Your task to perform on an android device: Open settings on Google Maps Image 0: 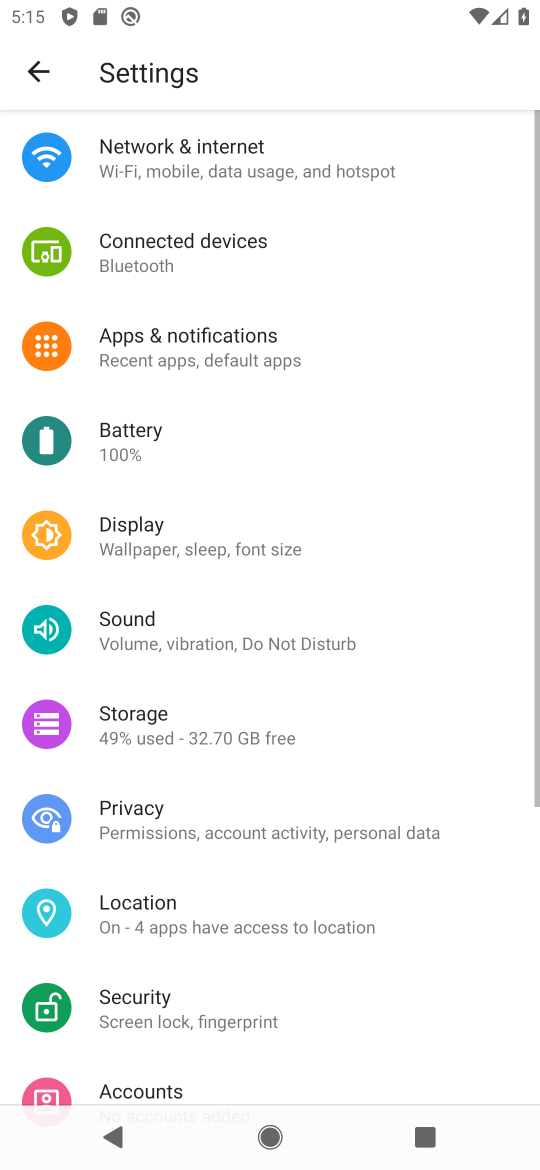
Step 0: press home button
Your task to perform on an android device: Open settings on Google Maps Image 1: 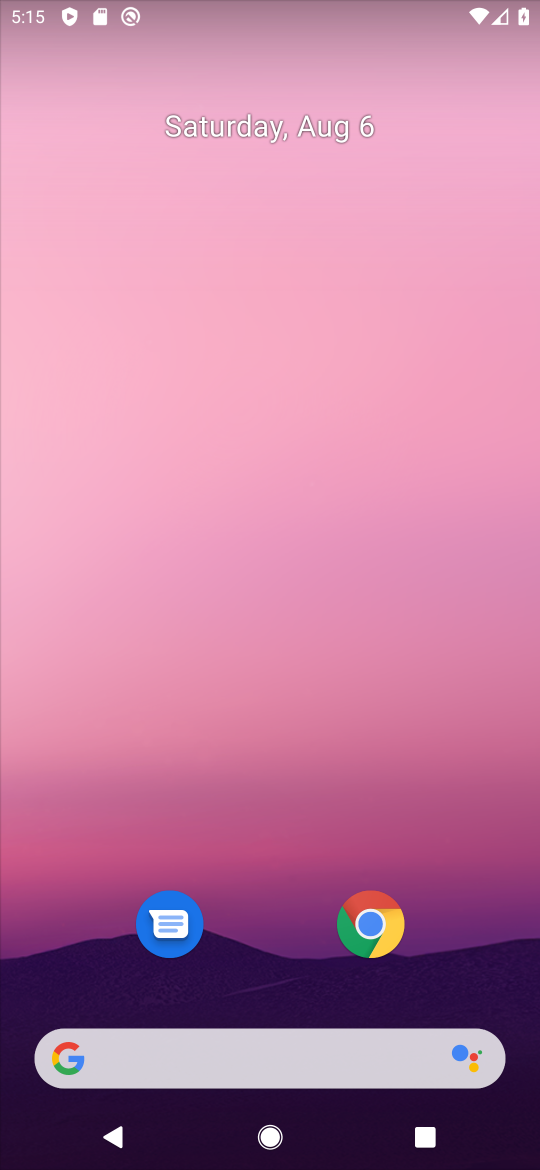
Step 1: drag from (249, 819) to (185, 166)
Your task to perform on an android device: Open settings on Google Maps Image 2: 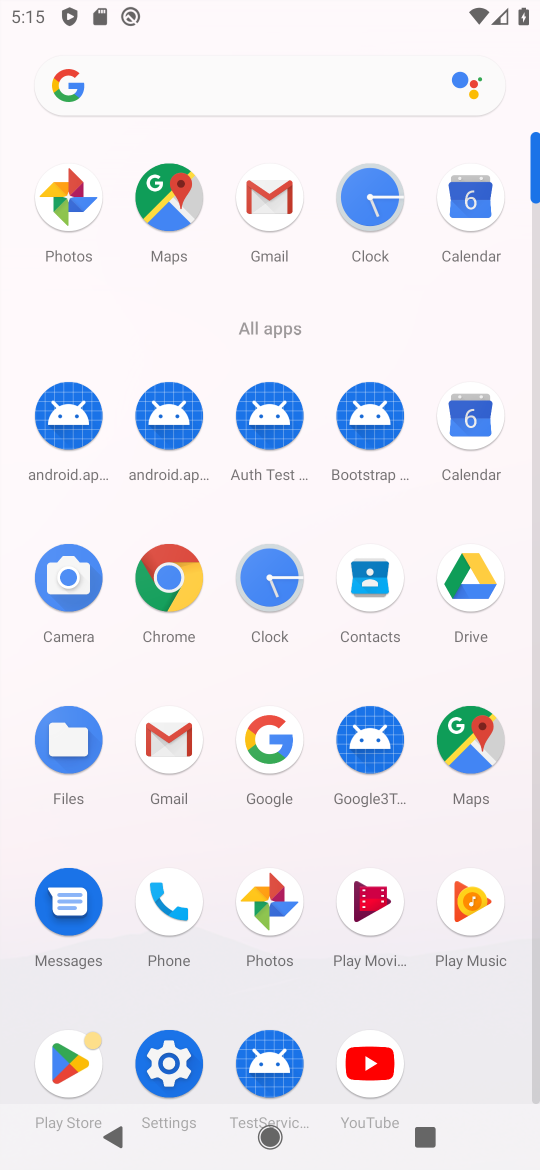
Step 2: click (464, 731)
Your task to perform on an android device: Open settings on Google Maps Image 3: 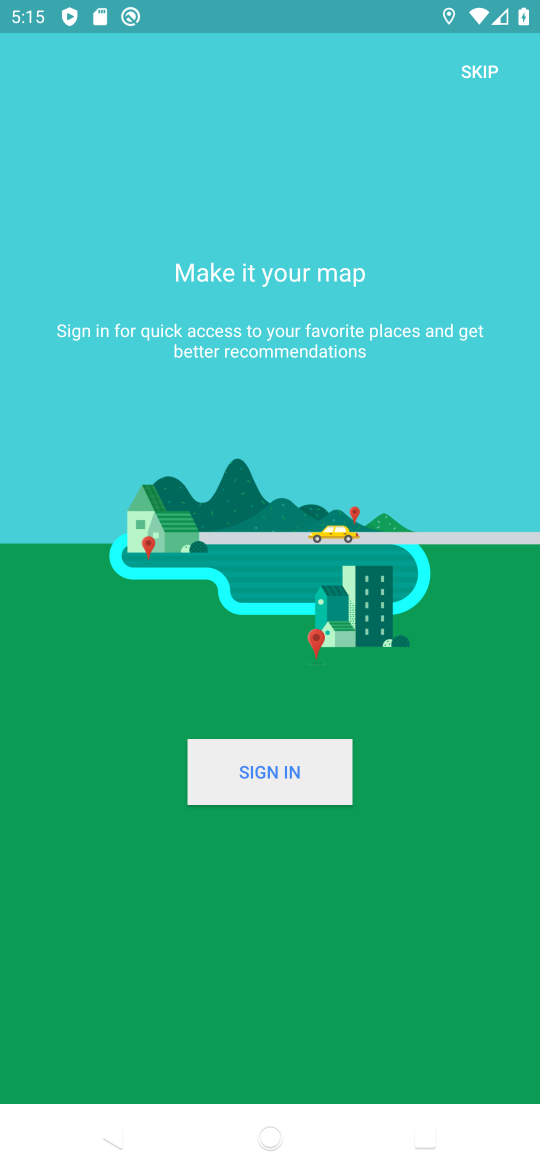
Step 3: click (473, 58)
Your task to perform on an android device: Open settings on Google Maps Image 4: 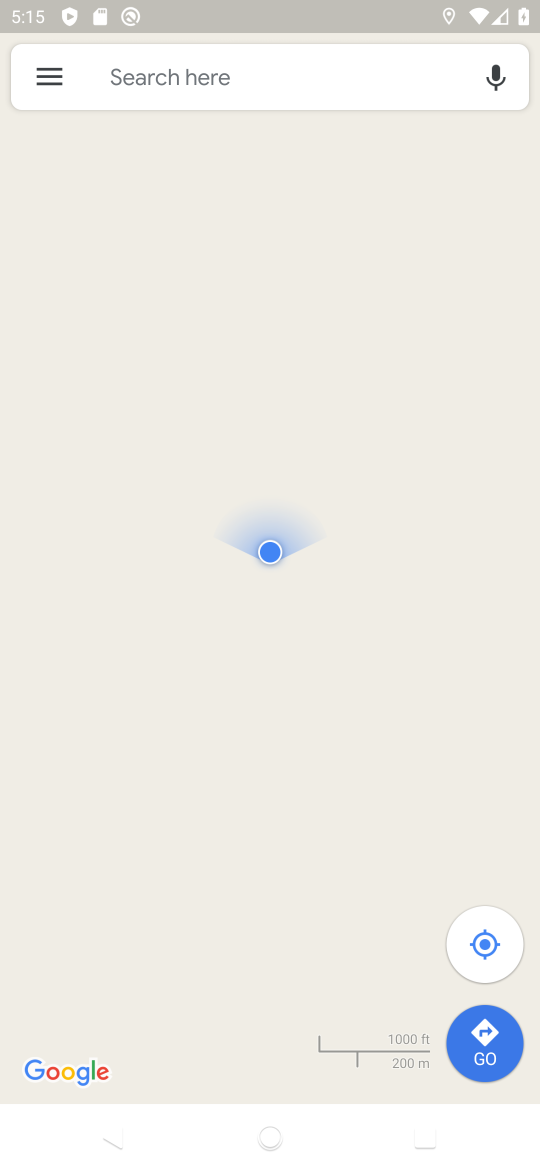
Step 4: click (44, 73)
Your task to perform on an android device: Open settings on Google Maps Image 5: 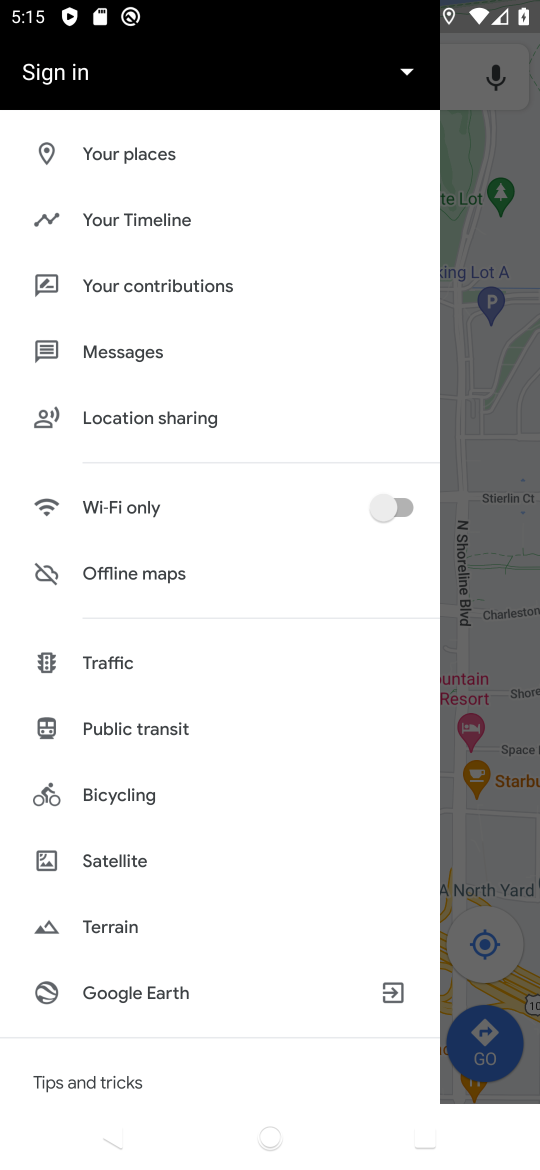
Step 5: drag from (225, 909) to (217, 309)
Your task to perform on an android device: Open settings on Google Maps Image 6: 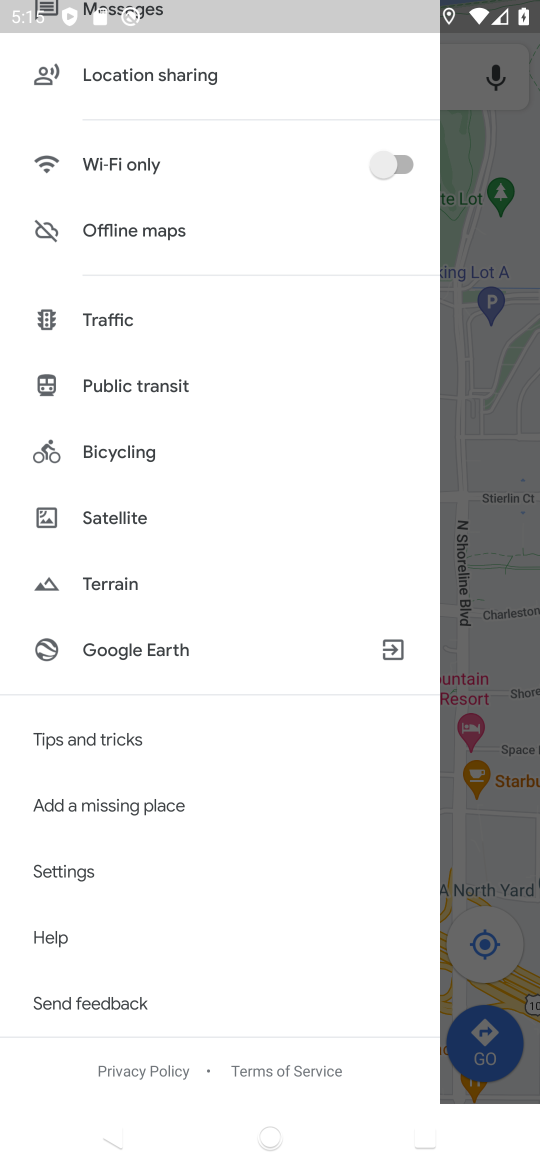
Step 6: click (73, 866)
Your task to perform on an android device: Open settings on Google Maps Image 7: 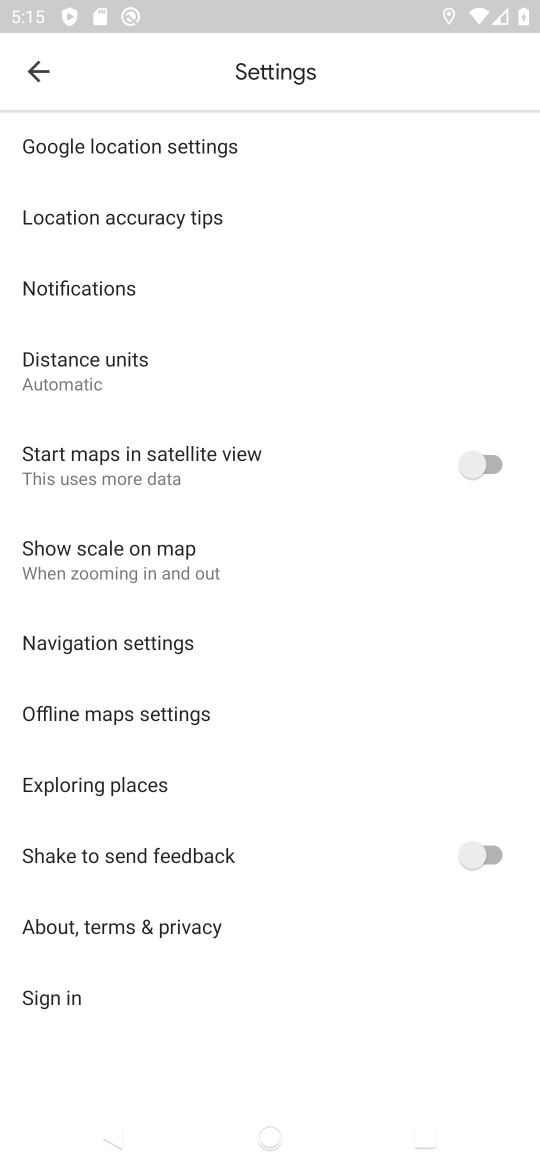
Step 7: task complete